Your task to perform on an android device: turn on data saver in the chrome app Image 0: 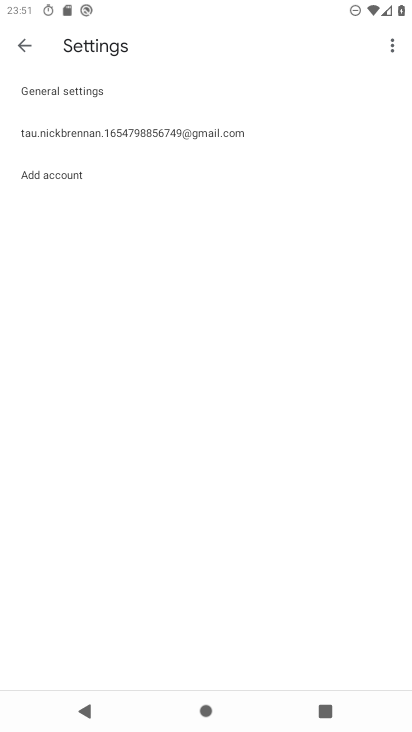
Step 0: press home button
Your task to perform on an android device: turn on data saver in the chrome app Image 1: 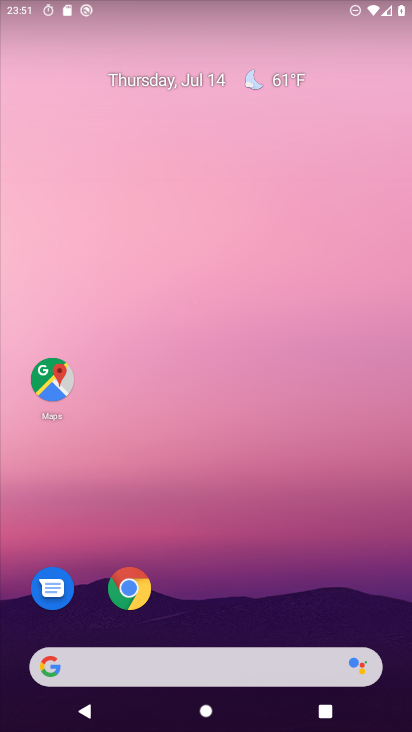
Step 1: drag from (240, 616) to (238, 0)
Your task to perform on an android device: turn on data saver in the chrome app Image 2: 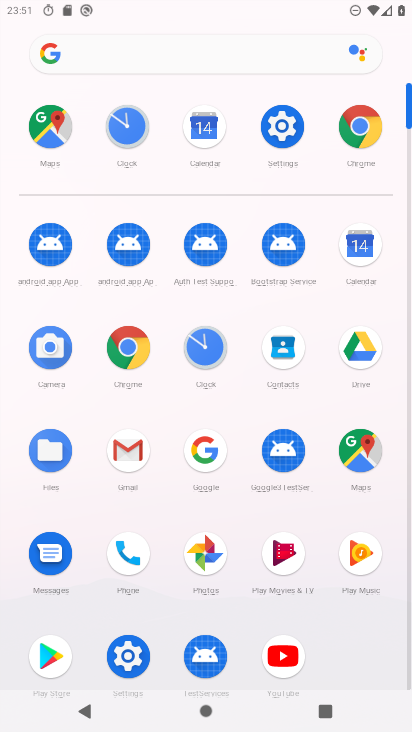
Step 2: click (133, 352)
Your task to perform on an android device: turn on data saver in the chrome app Image 3: 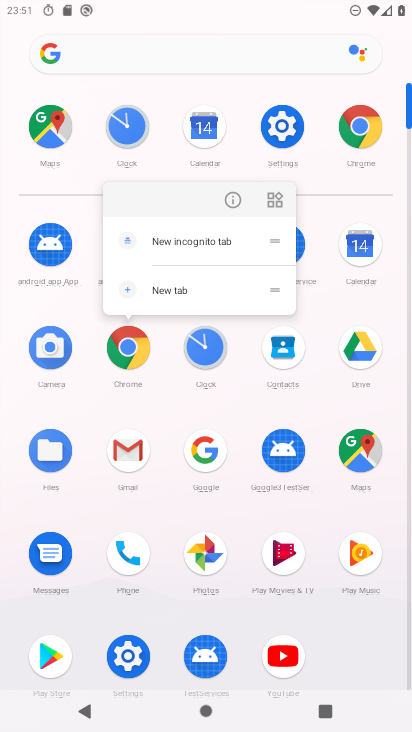
Step 3: click (137, 360)
Your task to perform on an android device: turn on data saver in the chrome app Image 4: 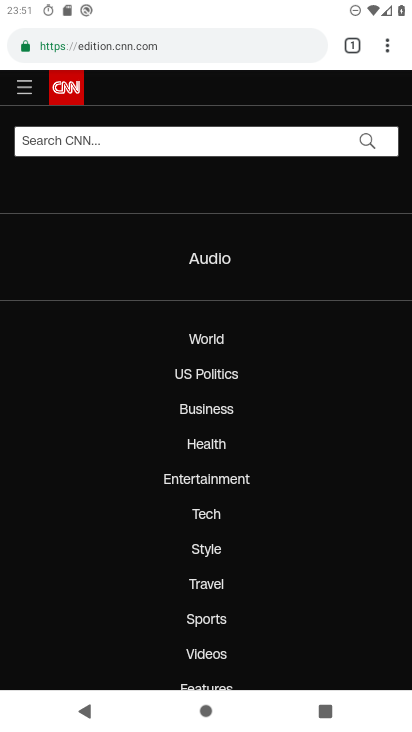
Step 4: click (391, 50)
Your task to perform on an android device: turn on data saver in the chrome app Image 5: 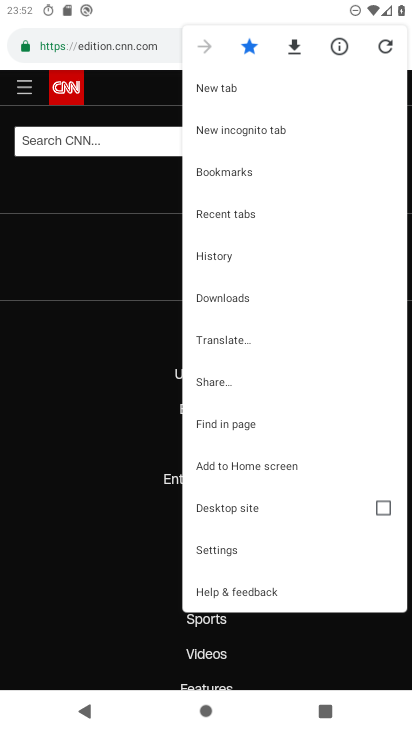
Step 5: click (196, 550)
Your task to perform on an android device: turn on data saver in the chrome app Image 6: 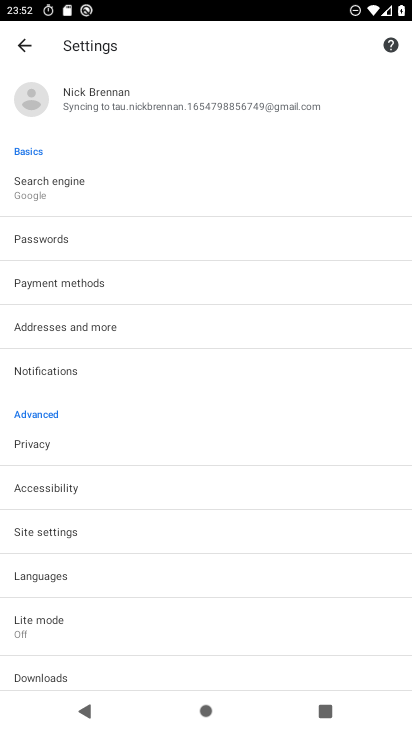
Step 6: click (46, 626)
Your task to perform on an android device: turn on data saver in the chrome app Image 7: 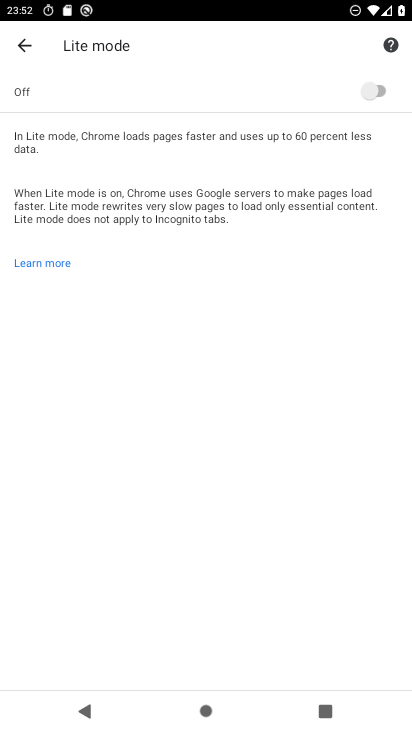
Step 7: click (366, 98)
Your task to perform on an android device: turn on data saver in the chrome app Image 8: 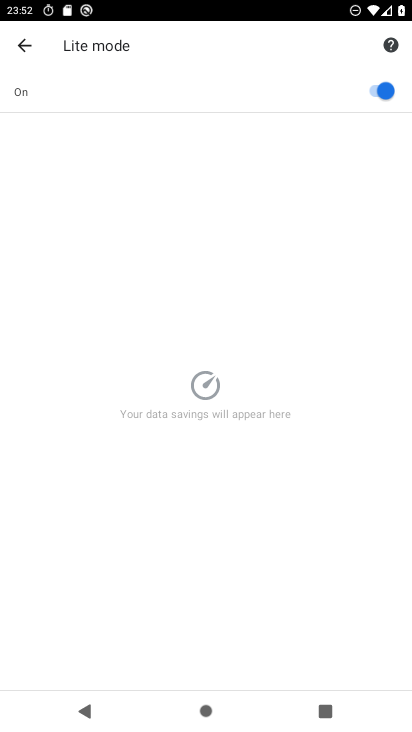
Step 8: task complete